Your task to perform on an android device: Go to Reddit.com Image 0: 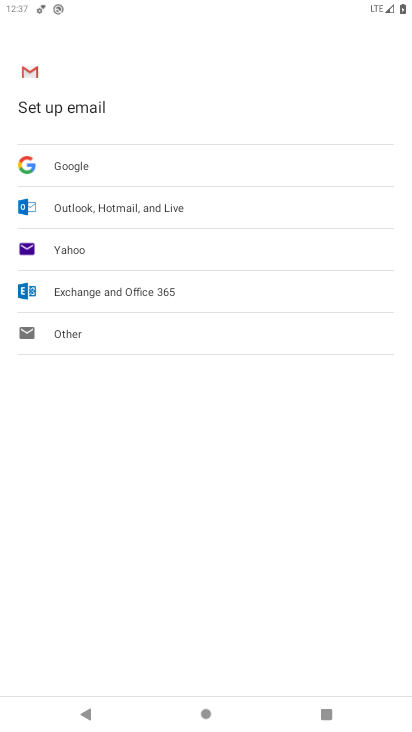
Step 0: press home button
Your task to perform on an android device: Go to Reddit.com Image 1: 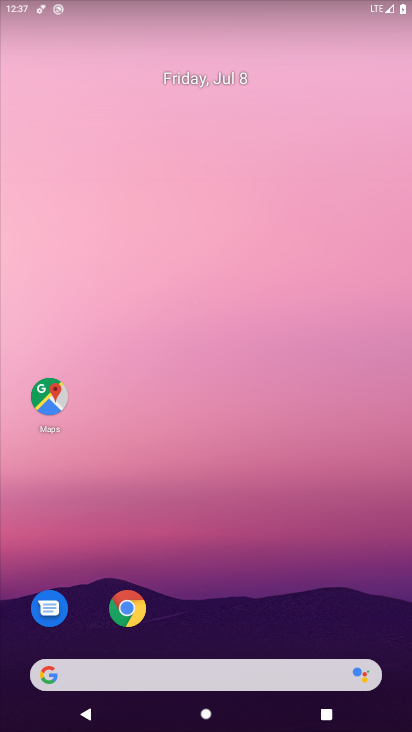
Step 1: click (115, 618)
Your task to perform on an android device: Go to Reddit.com Image 2: 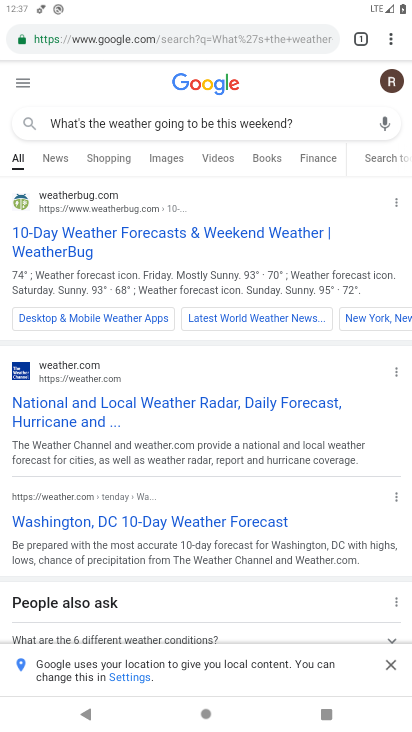
Step 2: click (161, 33)
Your task to perform on an android device: Go to Reddit.com Image 3: 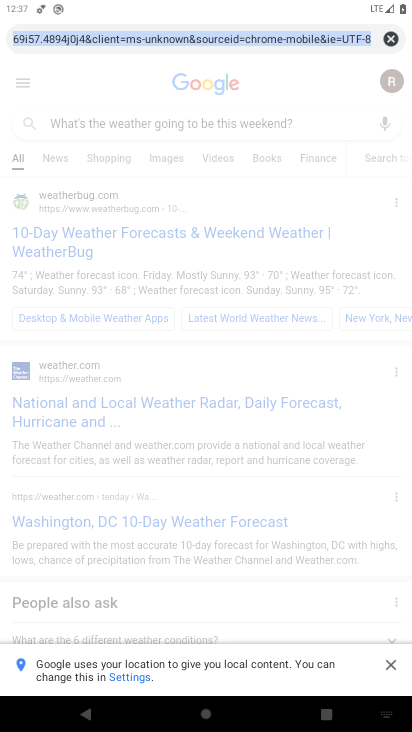
Step 3: type " Reddit.com"
Your task to perform on an android device: Go to Reddit.com Image 4: 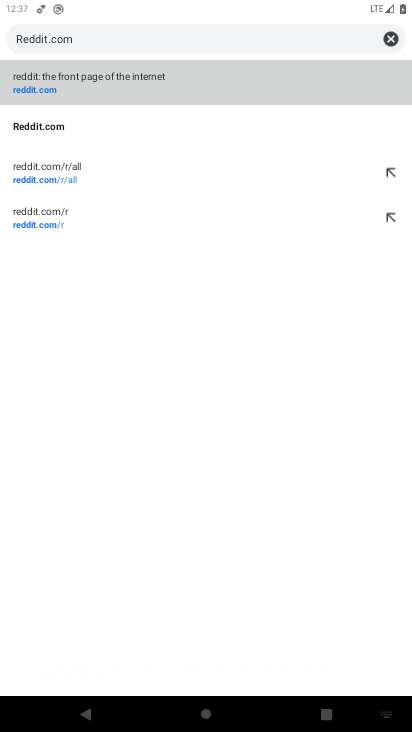
Step 4: click (128, 75)
Your task to perform on an android device: Go to Reddit.com Image 5: 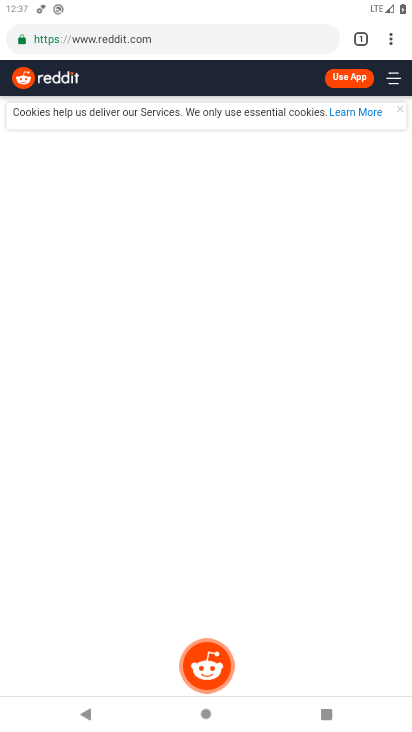
Step 5: task complete